Your task to perform on an android device: Go to Maps Image 0: 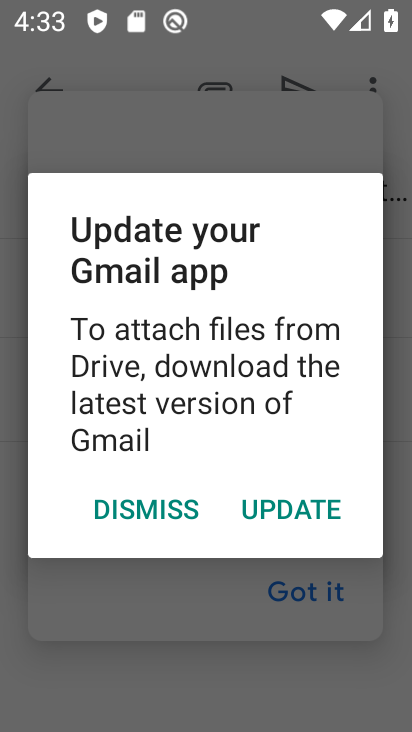
Step 0: click (131, 487)
Your task to perform on an android device: Go to Maps Image 1: 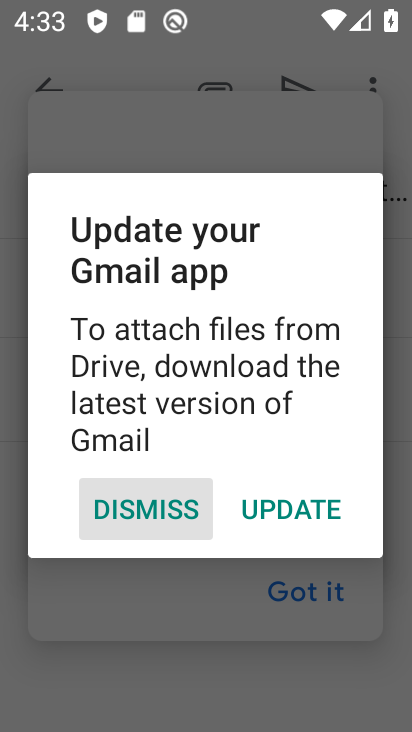
Step 1: click (131, 487)
Your task to perform on an android device: Go to Maps Image 2: 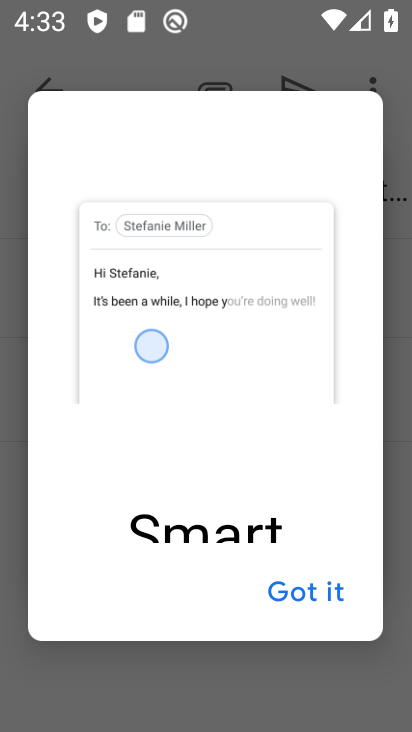
Step 2: click (299, 580)
Your task to perform on an android device: Go to Maps Image 3: 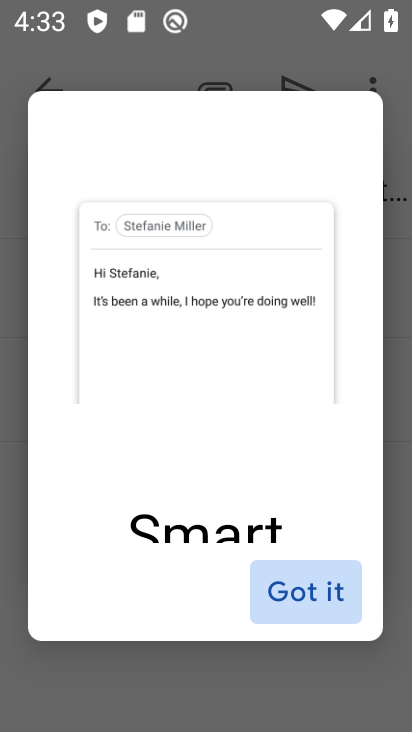
Step 3: click (299, 580)
Your task to perform on an android device: Go to Maps Image 4: 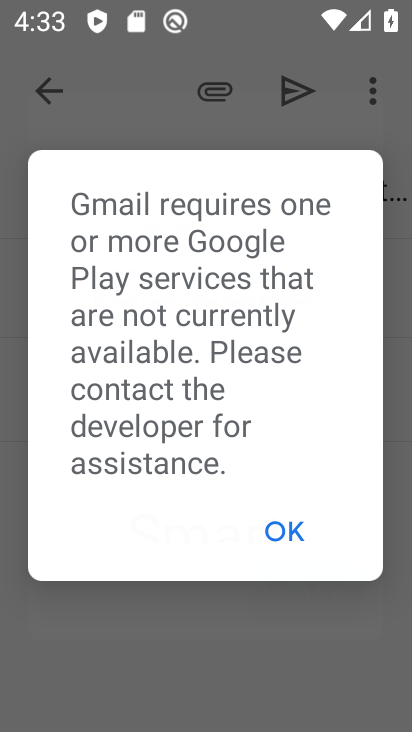
Step 4: click (298, 580)
Your task to perform on an android device: Go to Maps Image 5: 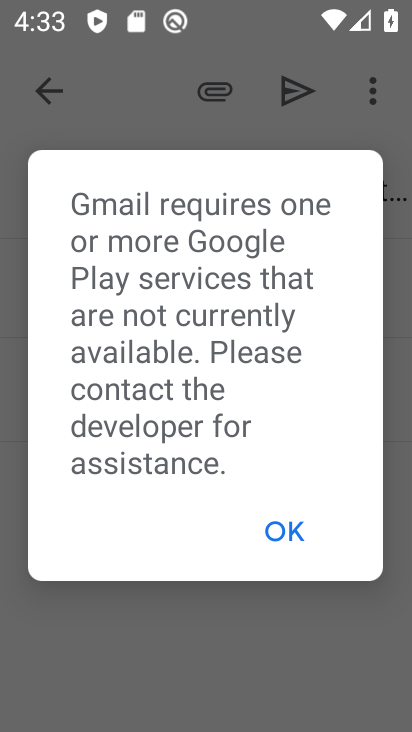
Step 5: click (283, 534)
Your task to perform on an android device: Go to Maps Image 6: 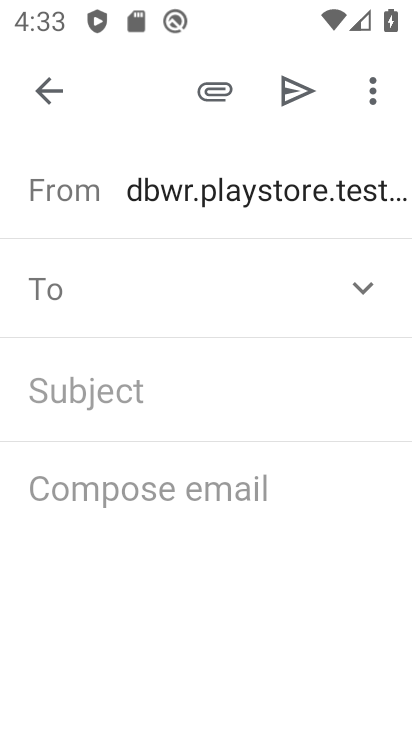
Step 6: click (286, 531)
Your task to perform on an android device: Go to Maps Image 7: 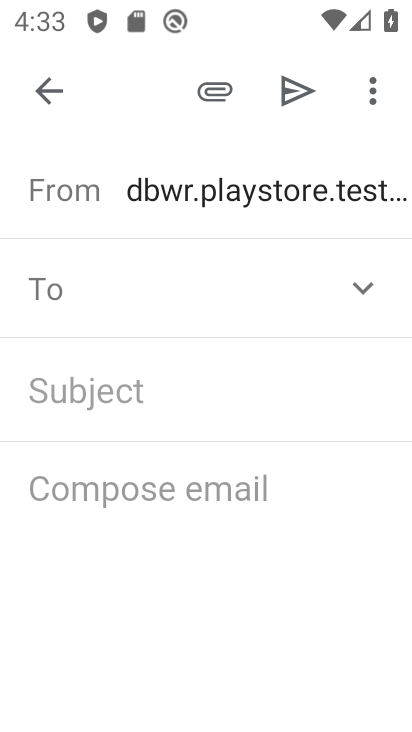
Step 7: click (47, 94)
Your task to perform on an android device: Go to Maps Image 8: 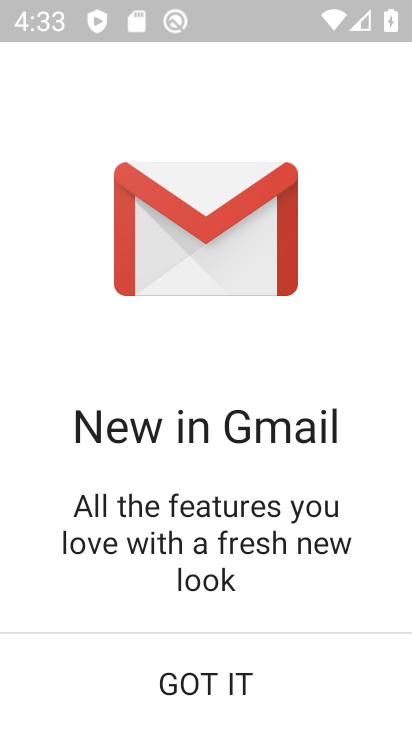
Step 8: click (220, 682)
Your task to perform on an android device: Go to Maps Image 9: 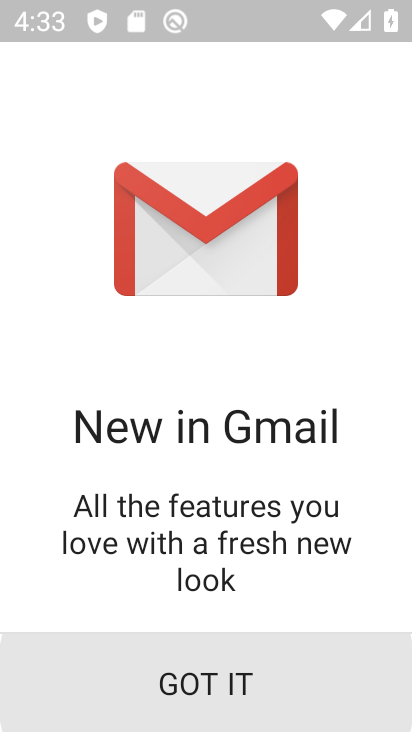
Step 9: click (220, 682)
Your task to perform on an android device: Go to Maps Image 10: 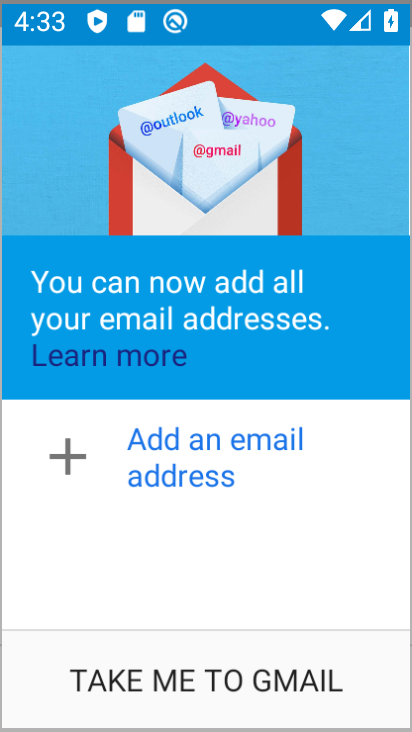
Step 10: click (212, 678)
Your task to perform on an android device: Go to Maps Image 11: 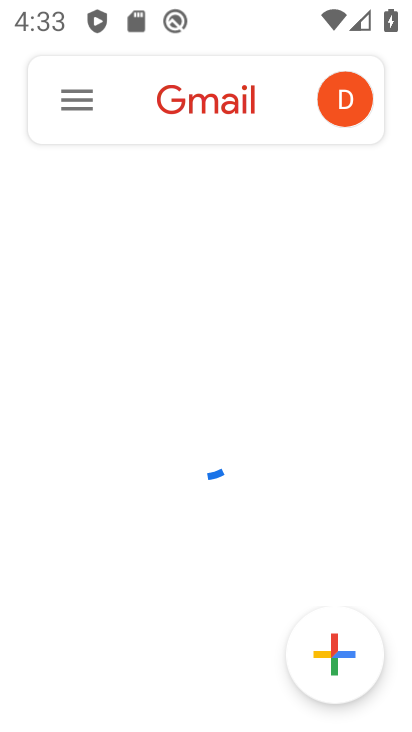
Step 11: press back button
Your task to perform on an android device: Go to Maps Image 12: 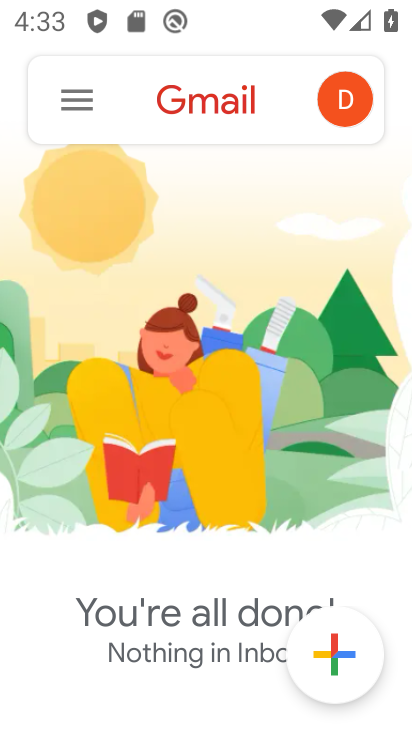
Step 12: press back button
Your task to perform on an android device: Go to Maps Image 13: 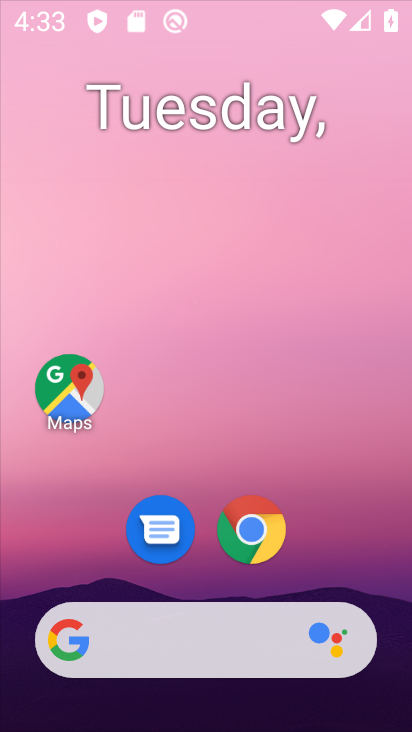
Step 13: press back button
Your task to perform on an android device: Go to Maps Image 14: 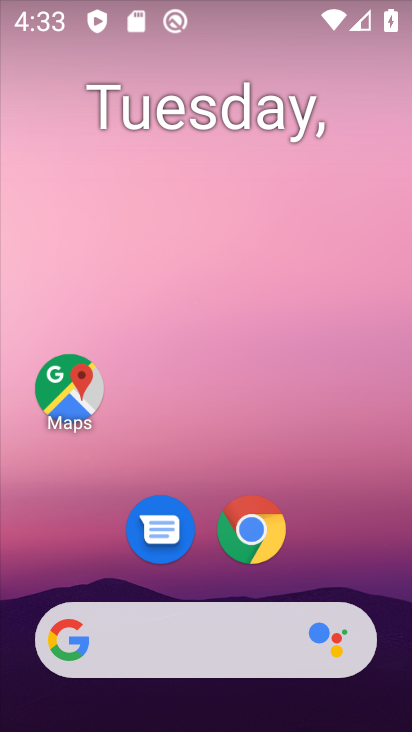
Step 14: drag from (225, 501) to (171, 176)
Your task to perform on an android device: Go to Maps Image 15: 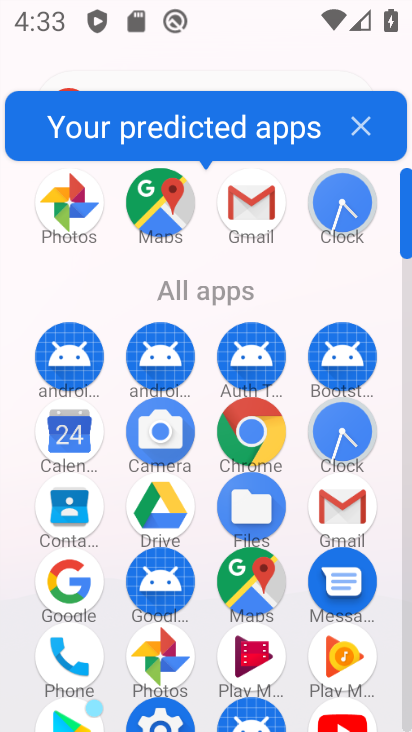
Step 15: click (152, 224)
Your task to perform on an android device: Go to Maps Image 16: 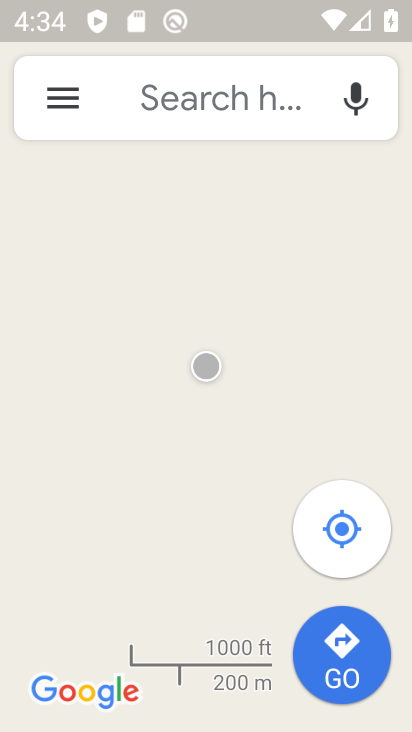
Step 16: task complete